Your task to perform on an android device: turn on data saver in the chrome app Image 0: 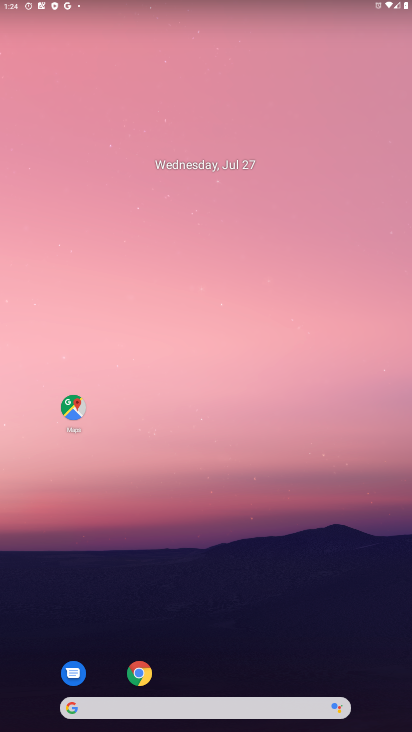
Step 0: click (133, 680)
Your task to perform on an android device: turn on data saver in the chrome app Image 1: 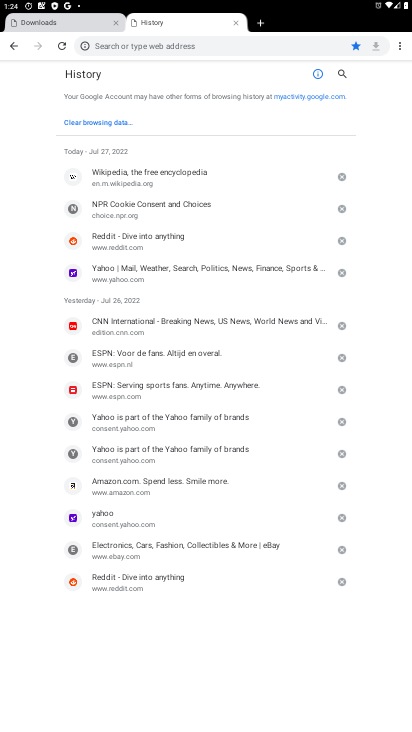
Step 1: drag from (402, 45) to (319, 210)
Your task to perform on an android device: turn on data saver in the chrome app Image 2: 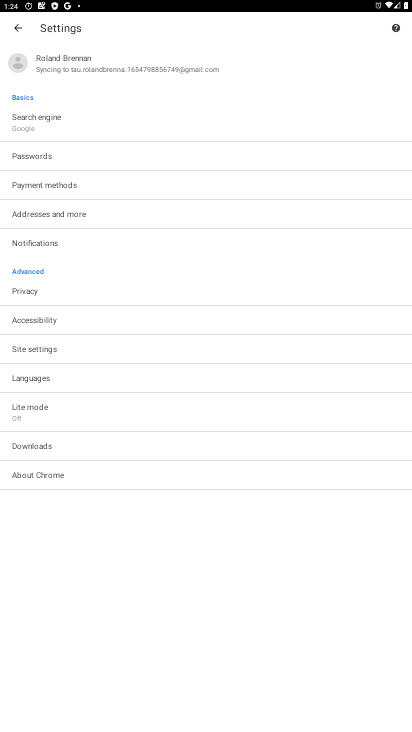
Step 2: click (8, 409)
Your task to perform on an android device: turn on data saver in the chrome app Image 3: 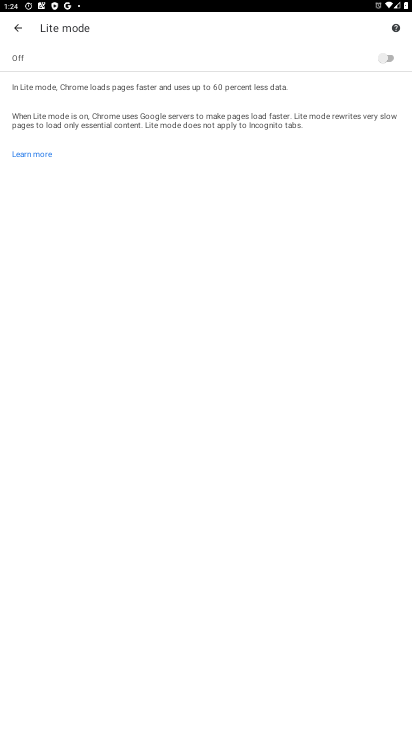
Step 3: click (381, 61)
Your task to perform on an android device: turn on data saver in the chrome app Image 4: 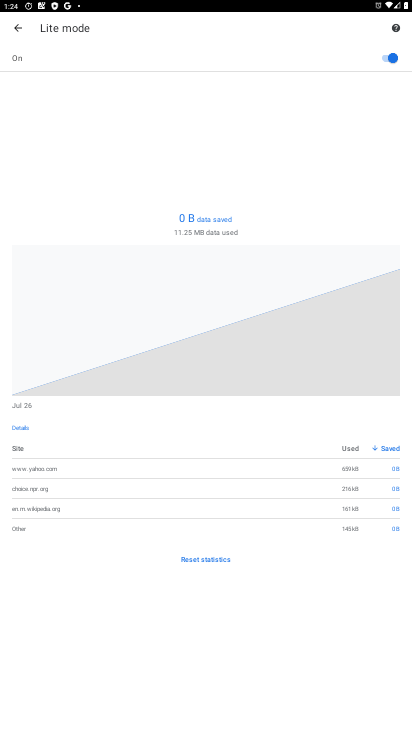
Step 4: task complete